Your task to perform on an android device: change timer sound Image 0: 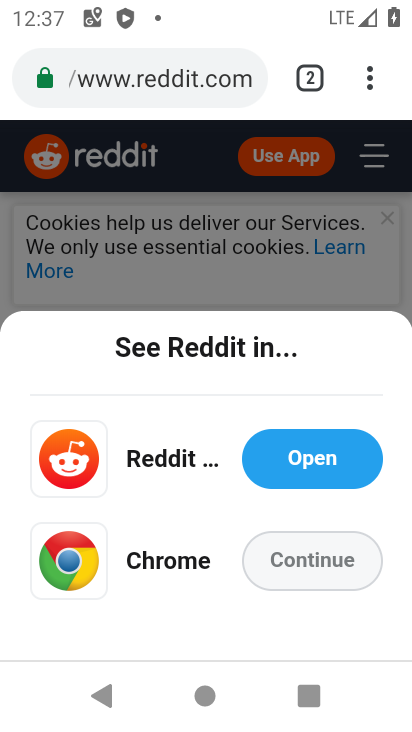
Step 0: press home button
Your task to perform on an android device: change timer sound Image 1: 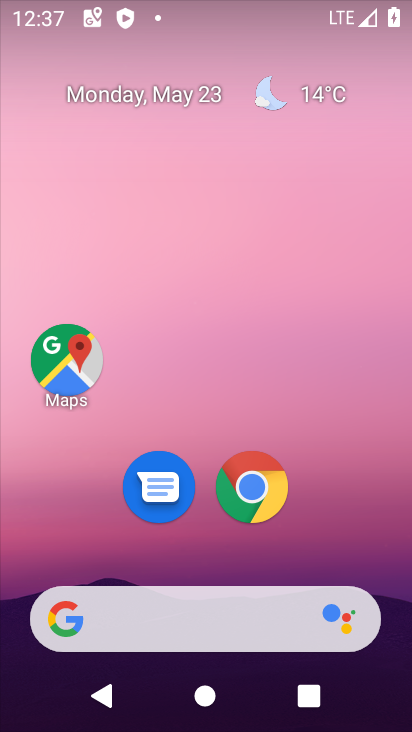
Step 1: drag from (397, 599) to (295, 22)
Your task to perform on an android device: change timer sound Image 2: 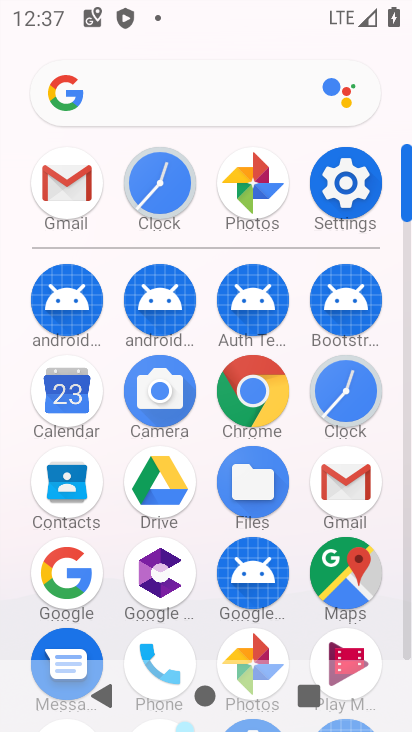
Step 2: click (409, 630)
Your task to perform on an android device: change timer sound Image 3: 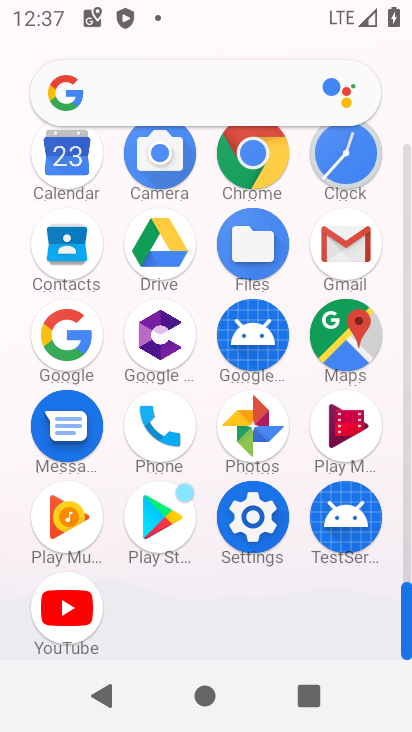
Step 3: click (344, 154)
Your task to perform on an android device: change timer sound Image 4: 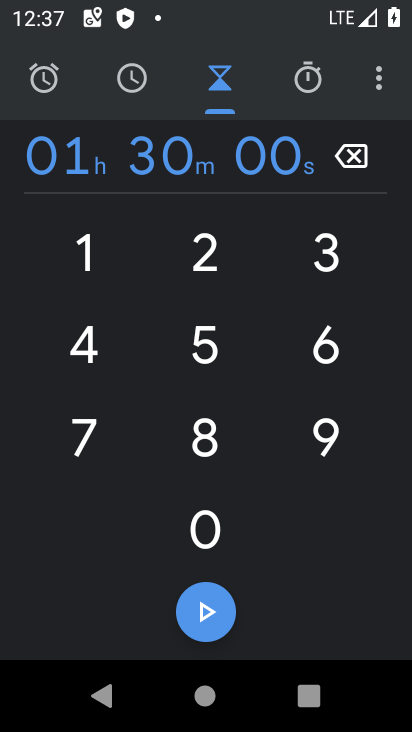
Step 4: click (379, 85)
Your task to perform on an android device: change timer sound Image 5: 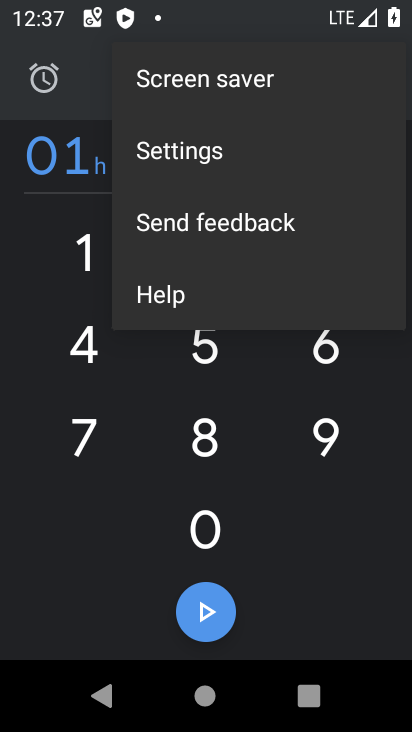
Step 5: click (176, 155)
Your task to perform on an android device: change timer sound Image 6: 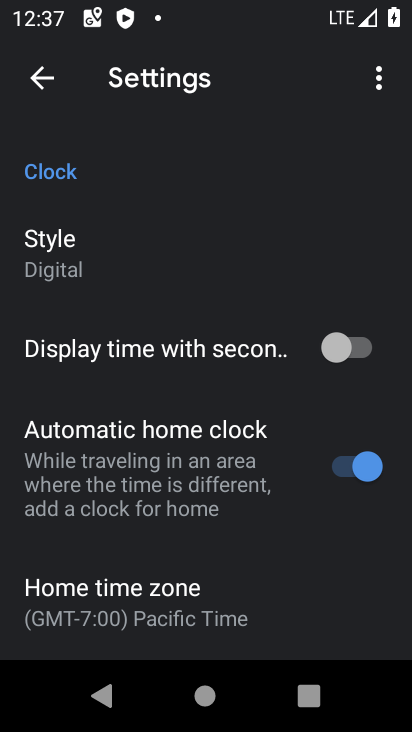
Step 6: drag from (271, 554) to (271, 283)
Your task to perform on an android device: change timer sound Image 7: 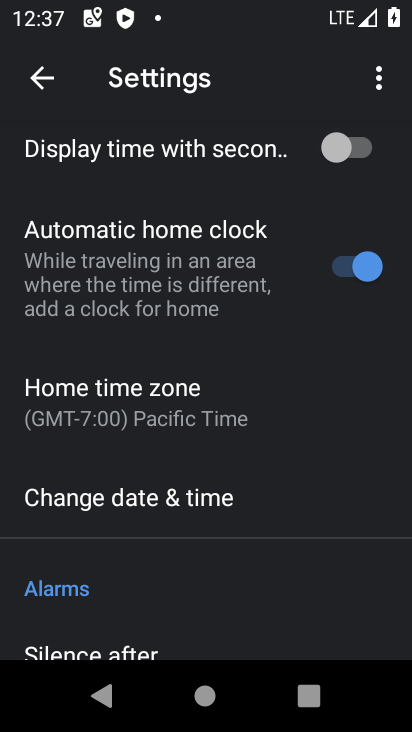
Step 7: drag from (271, 549) to (269, 174)
Your task to perform on an android device: change timer sound Image 8: 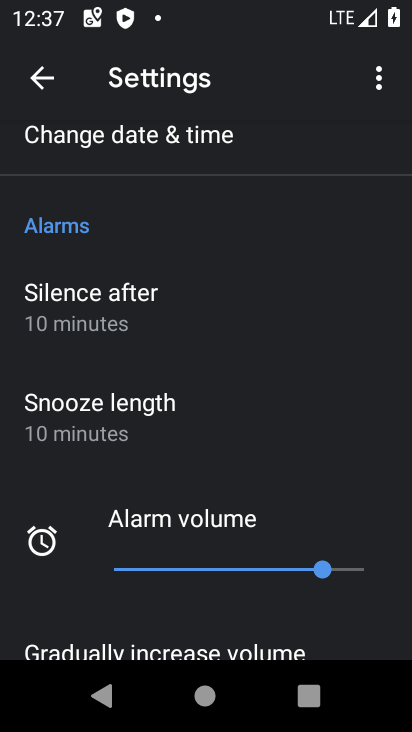
Step 8: drag from (276, 536) to (230, 111)
Your task to perform on an android device: change timer sound Image 9: 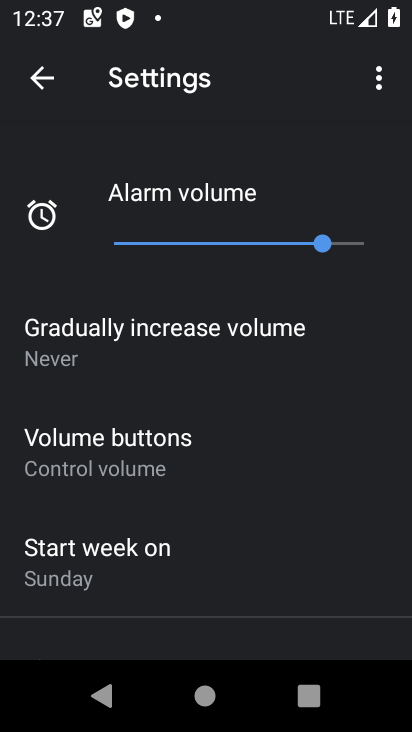
Step 9: drag from (177, 576) to (265, 143)
Your task to perform on an android device: change timer sound Image 10: 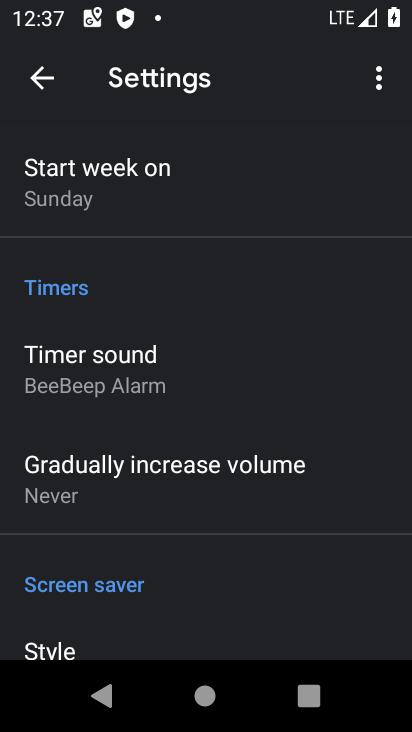
Step 10: click (99, 377)
Your task to perform on an android device: change timer sound Image 11: 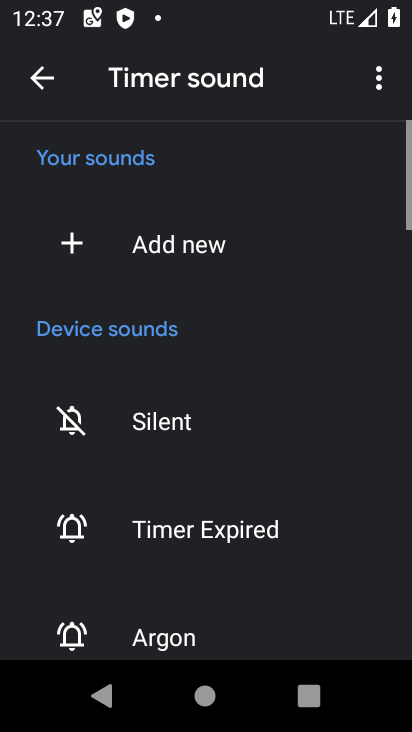
Step 11: drag from (329, 582) to (253, 46)
Your task to perform on an android device: change timer sound Image 12: 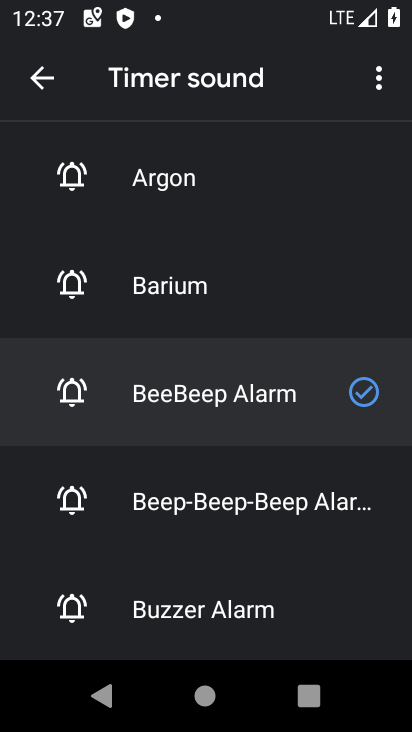
Step 12: drag from (243, 519) to (275, 191)
Your task to perform on an android device: change timer sound Image 13: 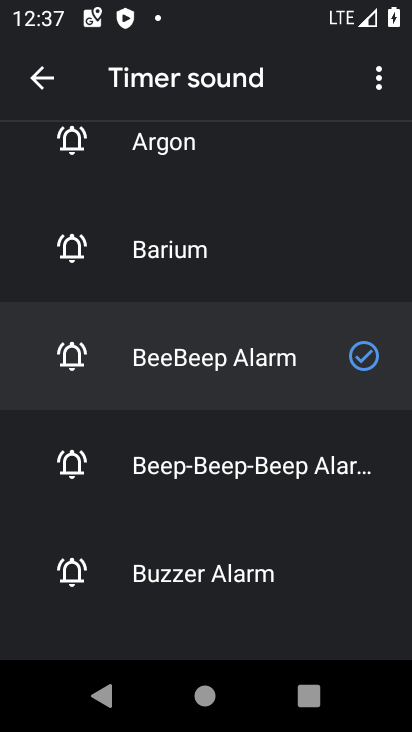
Step 13: click (201, 580)
Your task to perform on an android device: change timer sound Image 14: 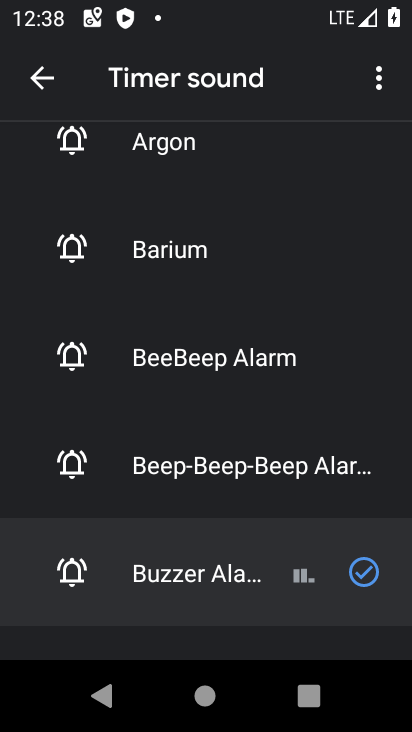
Step 14: task complete